Your task to perform on an android device: Open the calendar app, open the side menu, and click the "Day" option Image 0: 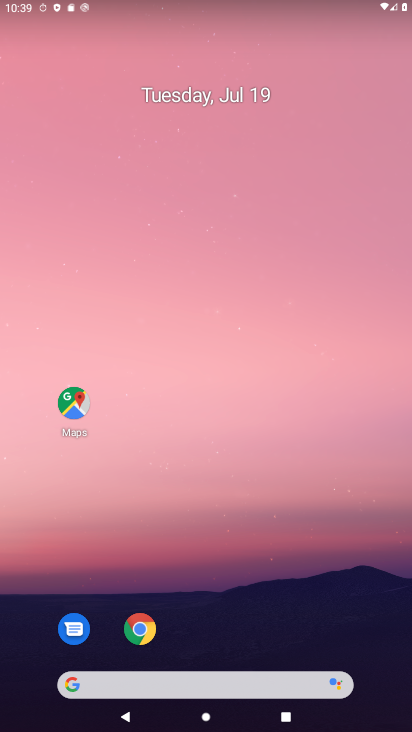
Step 0: drag from (265, 652) to (264, 356)
Your task to perform on an android device: Open the calendar app, open the side menu, and click the "Day" option Image 1: 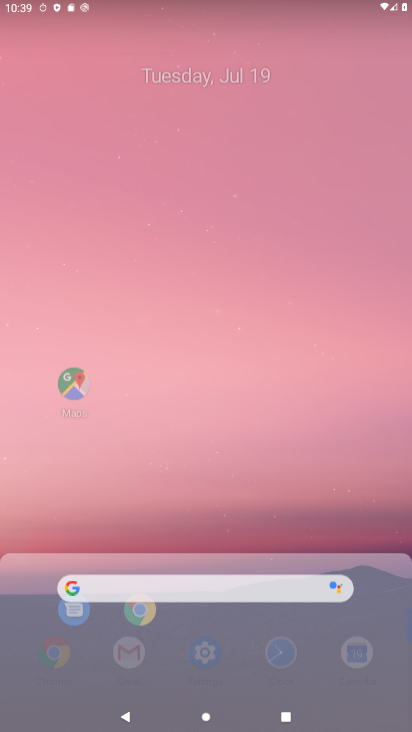
Step 1: drag from (304, 597) to (323, 253)
Your task to perform on an android device: Open the calendar app, open the side menu, and click the "Day" option Image 2: 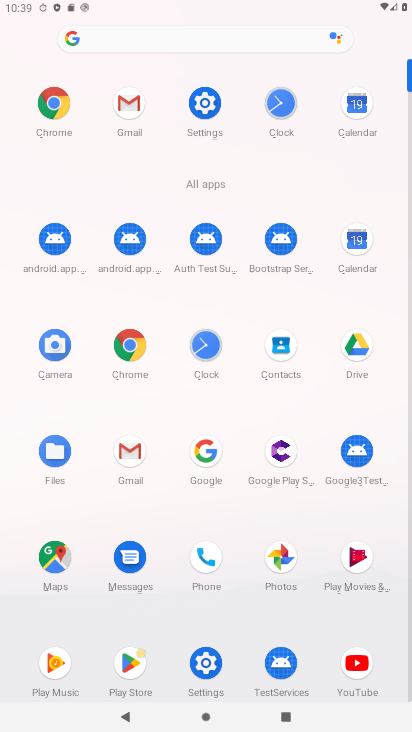
Step 2: drag from (274, 419) to (307, 183)
Your task to perform on an android device: Open the calendar app, open the side menu, and click the "Day" option Image 3: 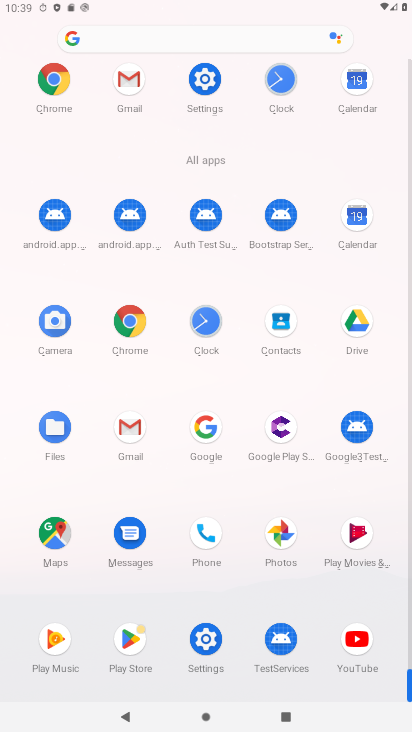
Step 3: click (354, 222)
Your task to perform on an android device: Open the calendar app, open the side menu, and click the "Day" option Image 4: 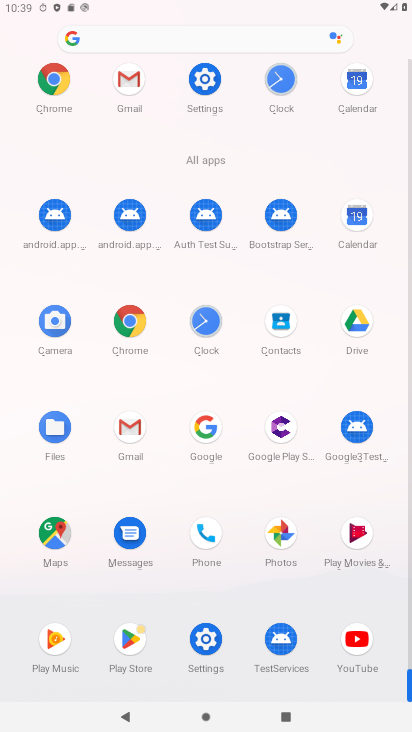
Step 4: click (354, 222)
Your task to perform on an android device: Open the calendar app, open the side menu, and click the "Day" option Image 5: 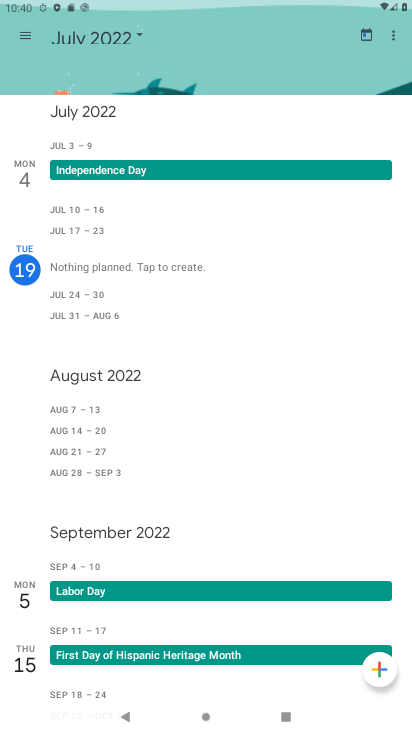
Step 5: click (28, 37)
Your task to perform on an android device: Open the calendar app, open the side menu, and click the "Day" option Image 6: 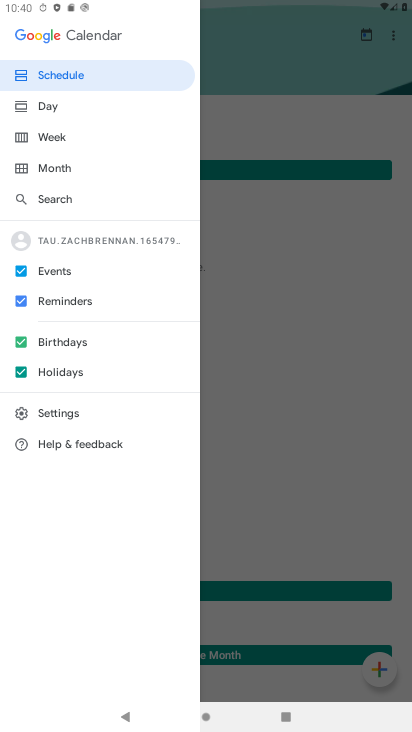
Step 6: click (46, 103)
Your task to perform on an android device: Open the calendar app, open the side menu, and click the "Day" option Image 7: 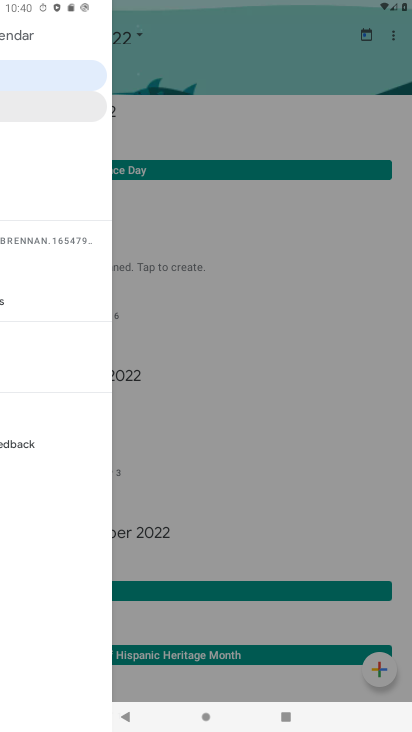
Step 7: click (46, 105)
Your task to perform on an android device: Open the calendar app, open the side menu, and click the "Day" option Image 8: 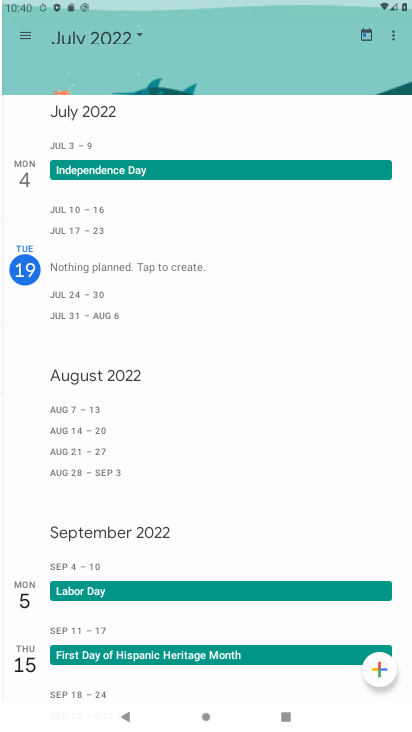
Step 8: click (46, 105)
Your task to perform on an android device: Open the calendar app, open the side menu, and click the "Day" option Image 9: 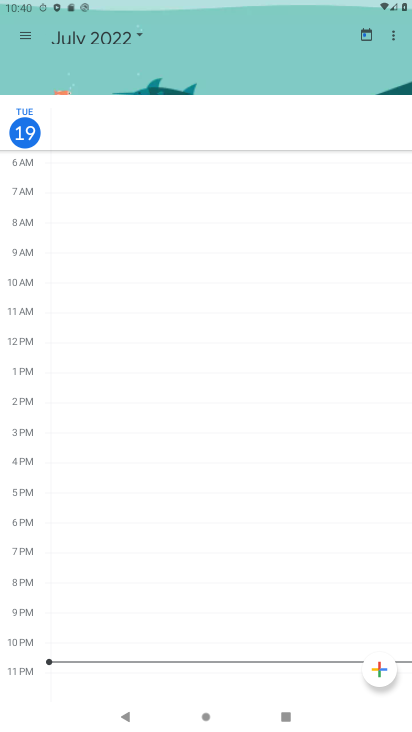
Step 9: task complete